Your task to perform on an android device: open app "Google Play Games" (install if not already installed) Image 0: 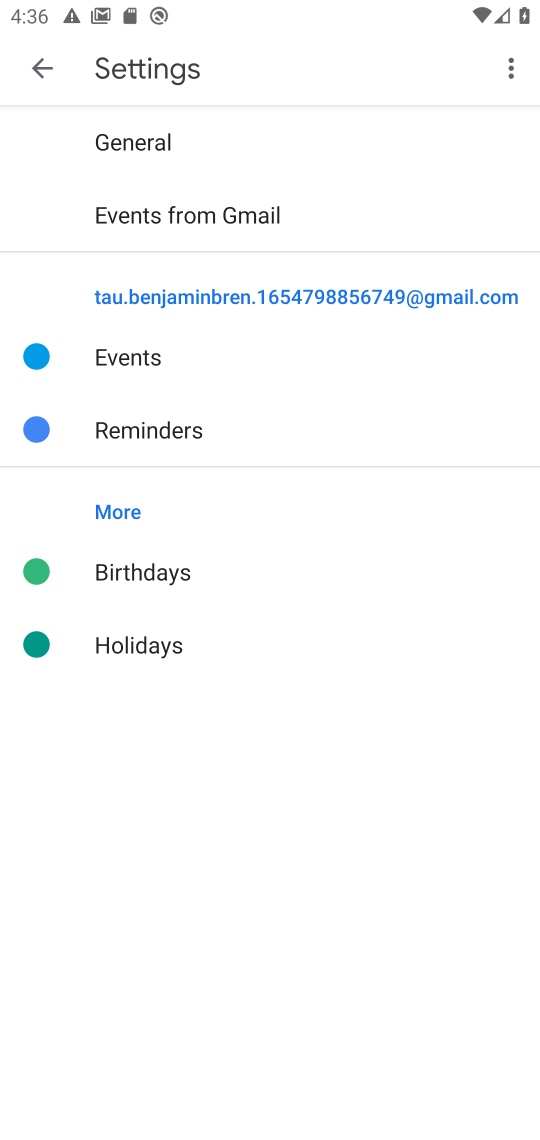
Step 0: press home button
Your task to perform on an android device: open app "Google Play Games" (install if not already installed) Image 1: 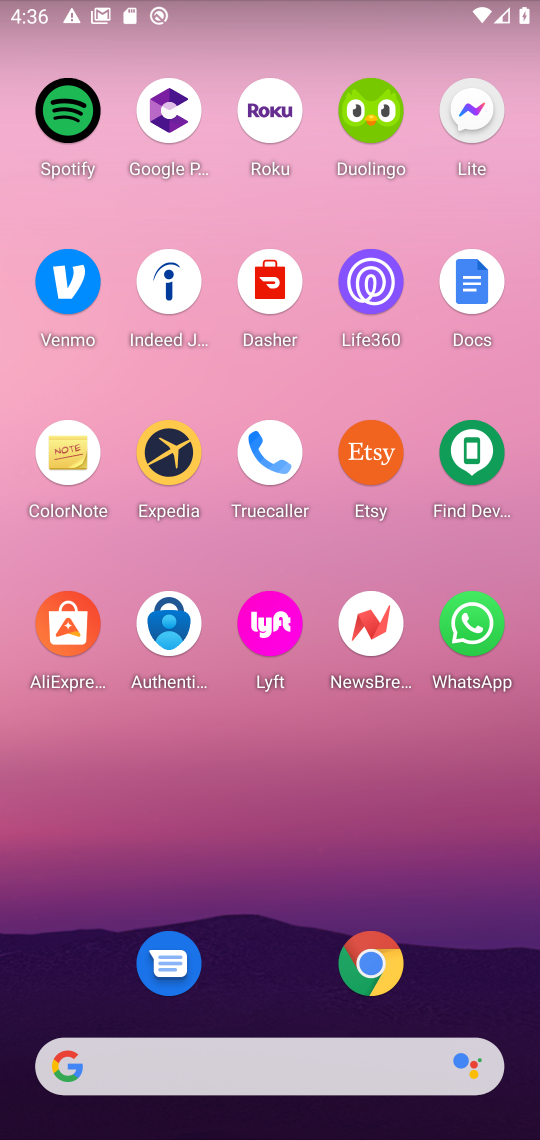
Step 1: drag from (240, 1038) to (174, 189)
Your task to perform on an android device: open app "Google Play Games" (install if not already installed) Image 2: 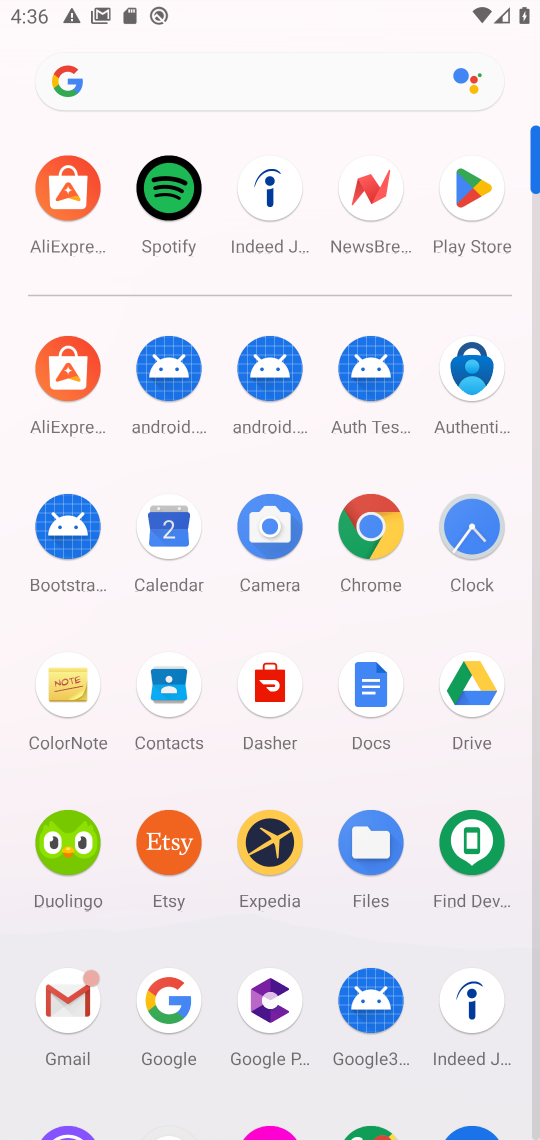
Step 2: click (460, 209)
Your task to perform on an android device: open app "Google Play Games" (install if not already installed) Image 3: 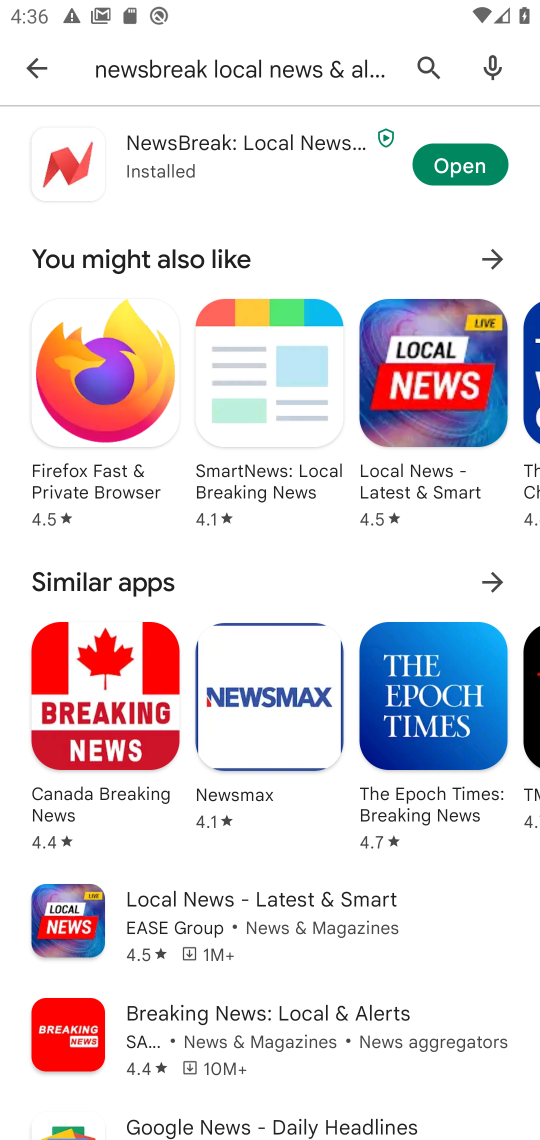
Step 3: click (428, 64)
Your task to perform on an android device: open app "Google Play Games" (install if not already installed) Image 4: 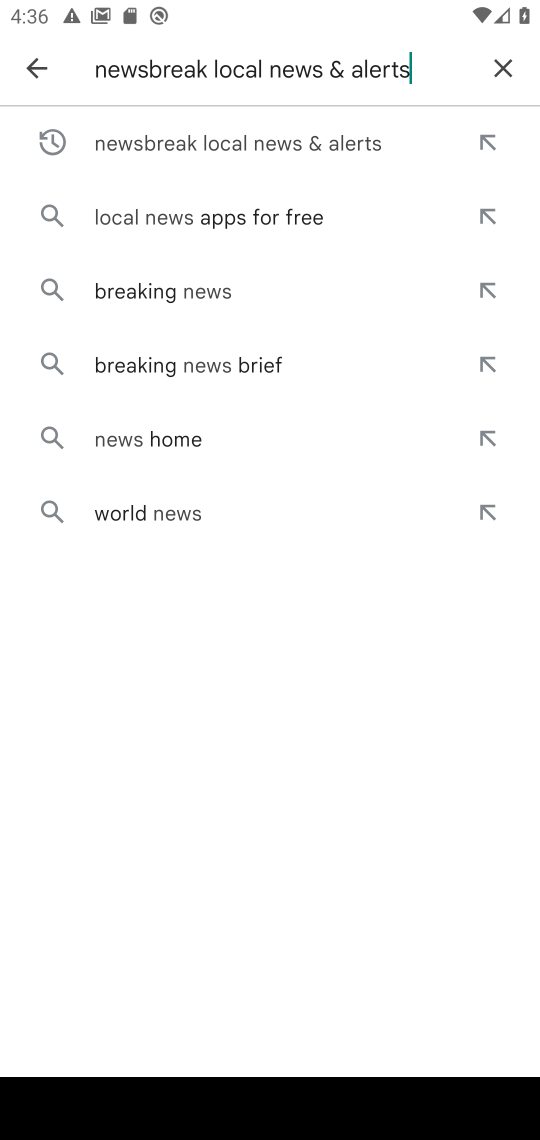
Step 4: click (507, 67)
Your task to perform on an android device: open app "Google Play Games" (install if not already installed) Image 5: 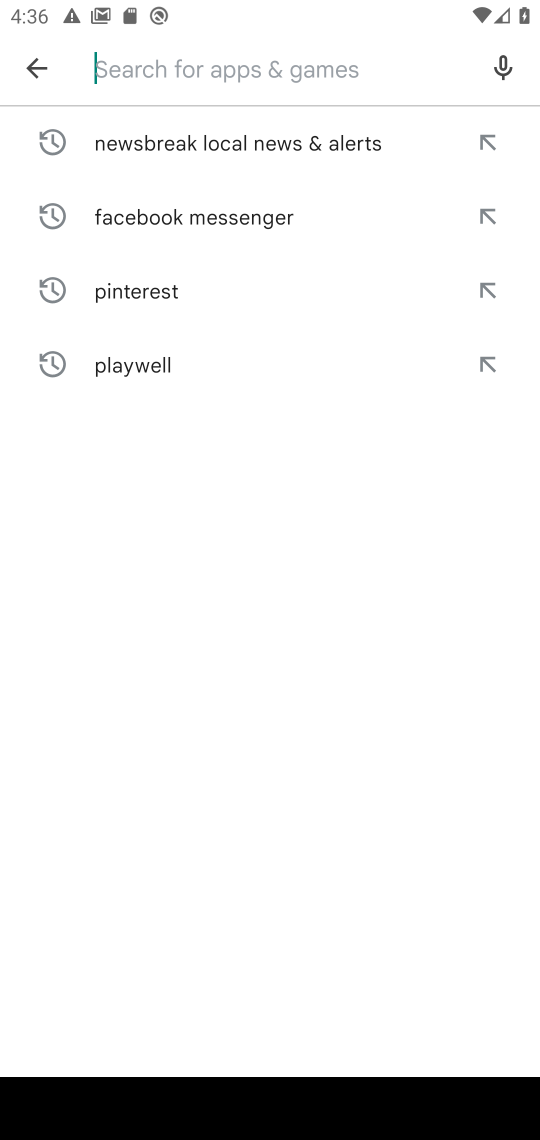
Step 5: type "Google Play Games"
Your task to perform on an android device: open app "Google Play Games" (install if not already installed) Image 6: 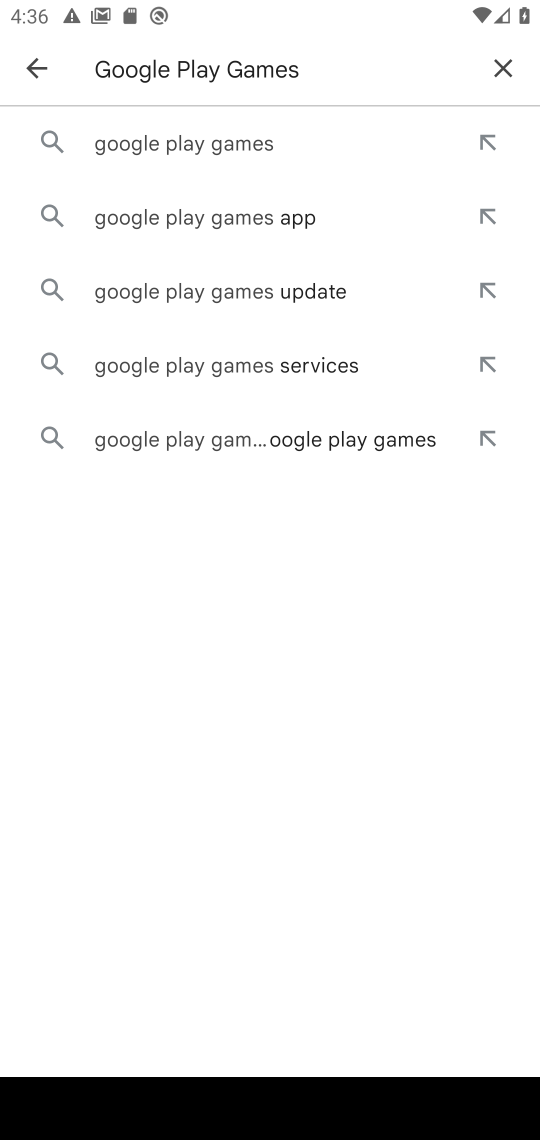
Step 6: click (182, 148)
Your task to perform on an android device: open app "Google Play Games" (install if not already installed) Image 7: 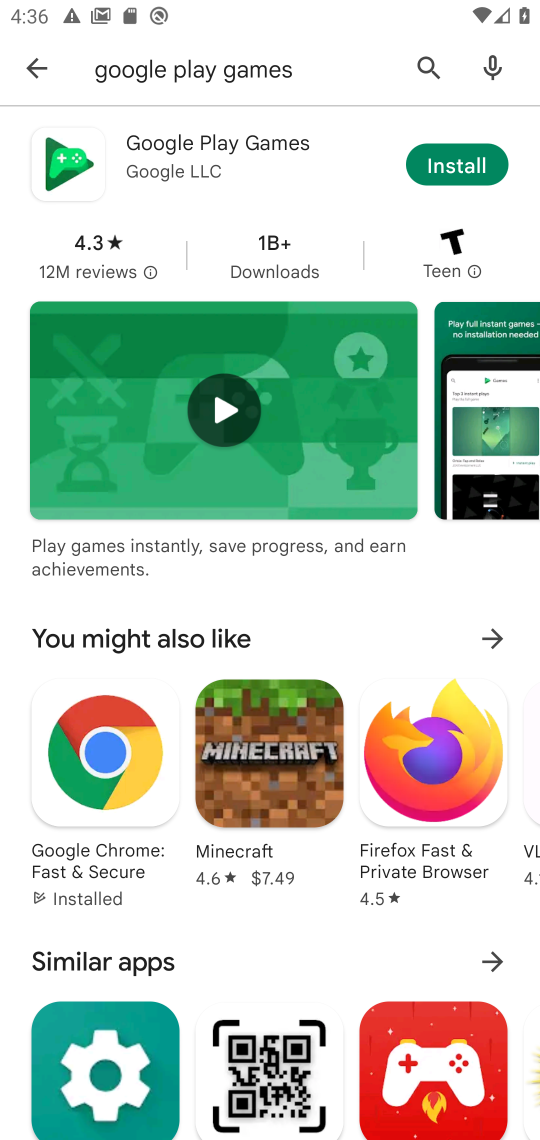
Step 7: click (455, 166)
Your task to perform on an android device: open app "Google Play Games" (install if not already installed) Image 8: 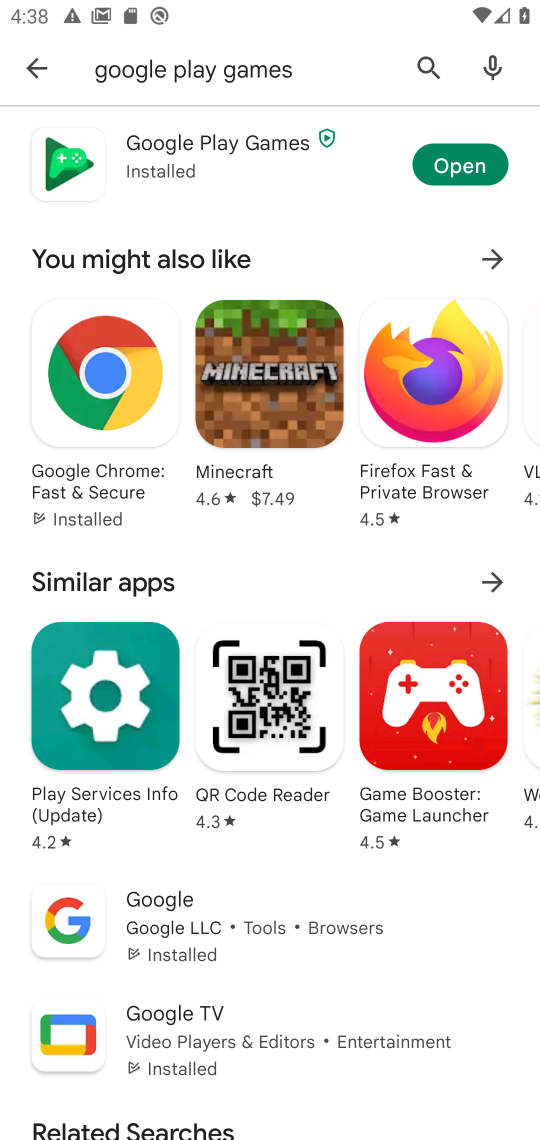
Step 8: click (470, 155)
Your task to perform on an android device: open app "Google Play Games" (install if not already installed) Image 9: 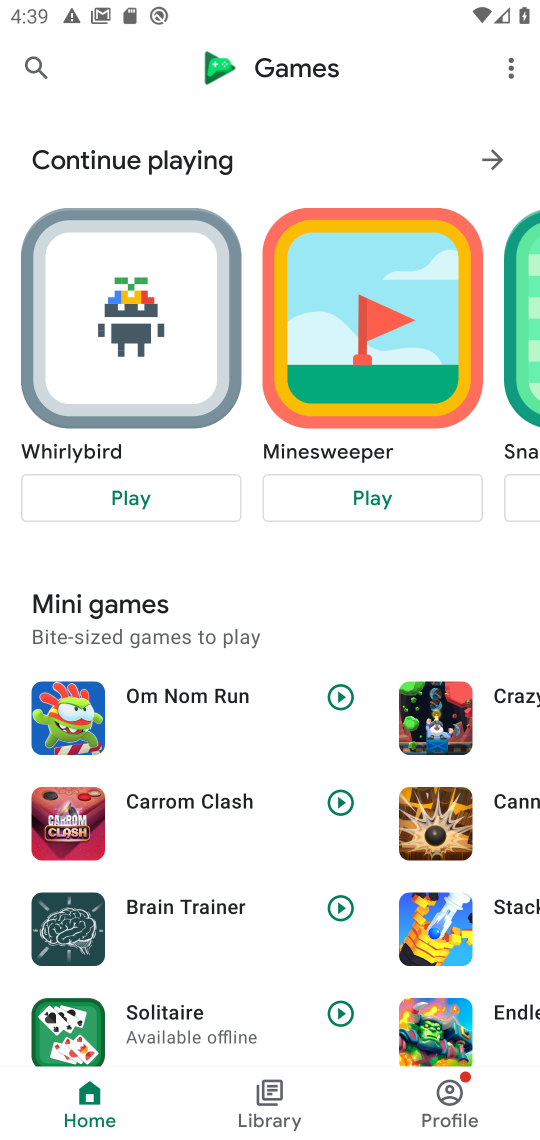
Step 9: task complete